Your task to perform on an android device: Is it going to rain today? Image 0: 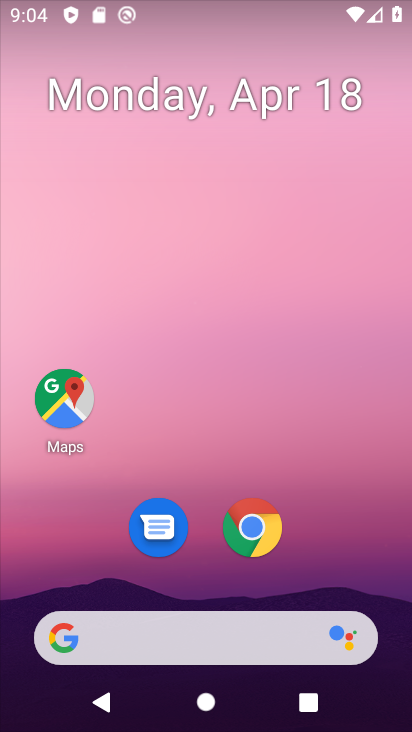
Step 0: drag from (83, 486) to (304, 445)
Your task to perform on an android device: Is it going to rain today? Image 1: 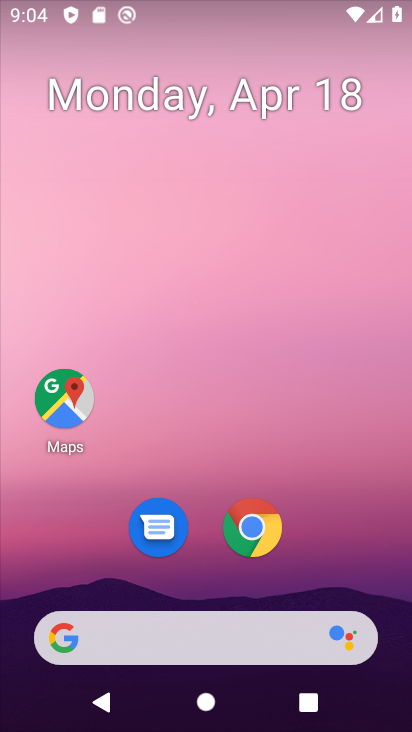
Step 1: drag from (229, 329) to (409, 329)
Your task to perform on an android device: Is it going to rain today? Image 2: 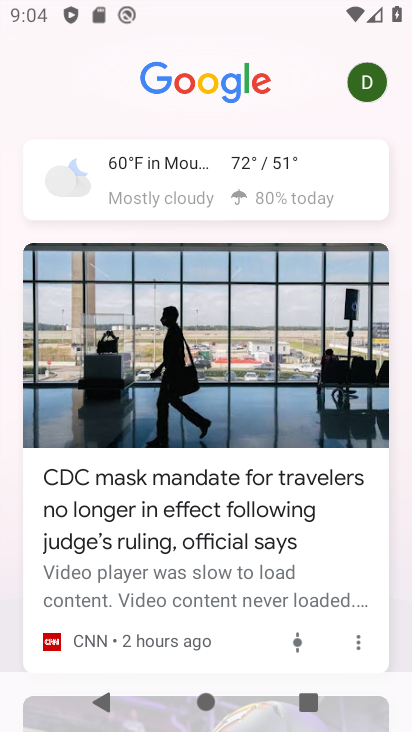
Step 2: click (293, 193)
Your task to perform on an android device: Is it going to rain today? Image 3: 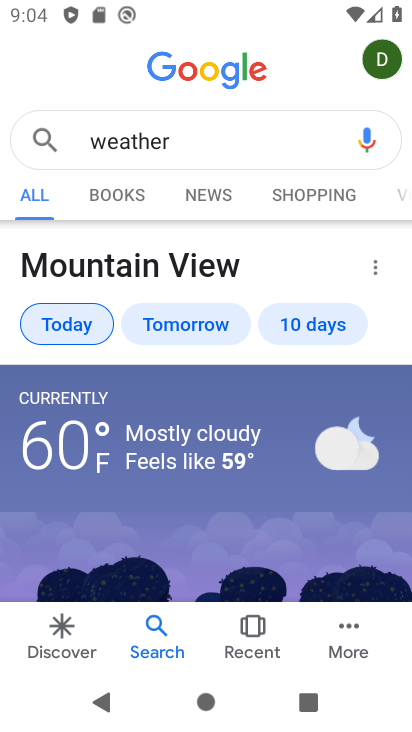
Step 3: task complete